Your task to perform on an android device: turn on bluetooth scan Image 0: 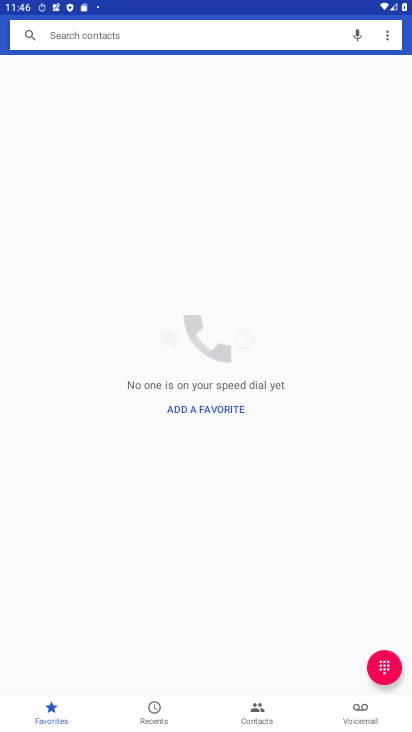
Step 0: press home button
Your task to perform on an android device: turn on bluetooth scan Image 1: 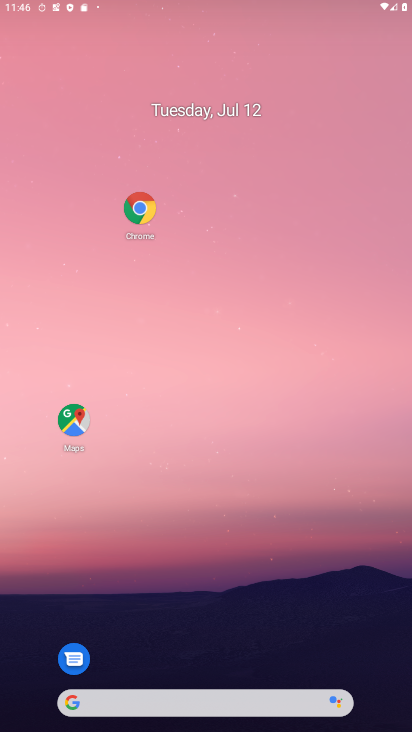
Step 1: drag from (284, 689) to (282, 4)
Your task to perform on an android device: turn on bluetooth scan Image 2: 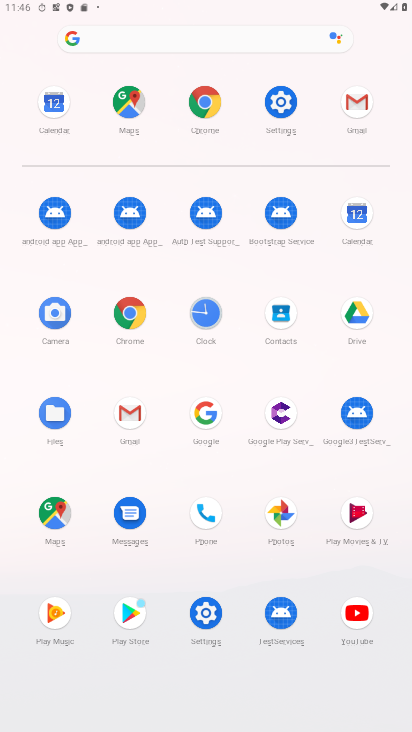
Step 2: click (277, 97)
Your task to perform on an android device: turn on bluetooth scan Image 3: 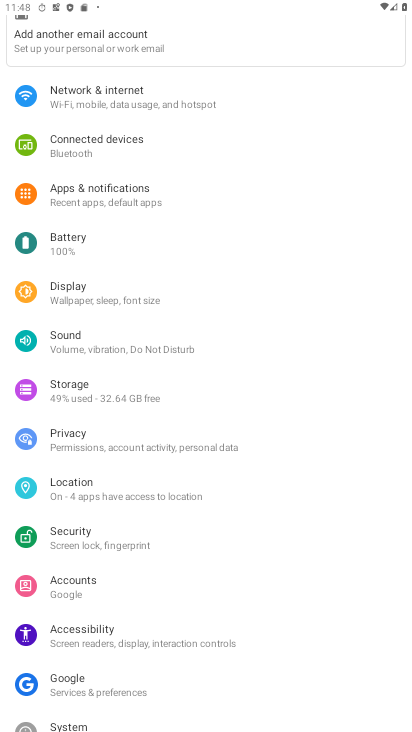
Step 3: click (77, 486)
Your task to perform on an android device: turn on bluetooth scan Image 4: 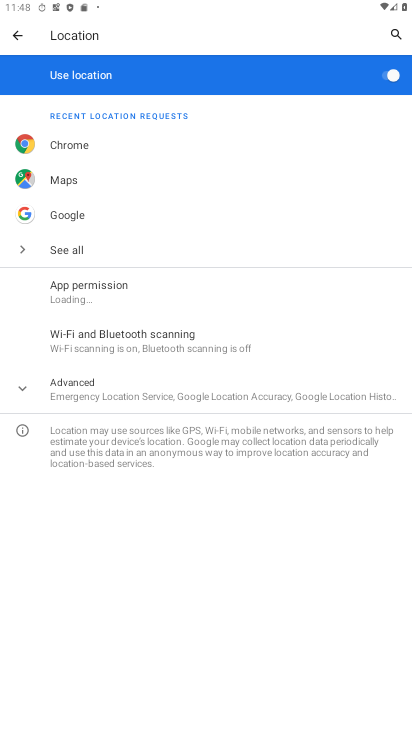
Step 4: click (181, 338)
Your task to perform on an android device: turn on bluetooth scan Image 5: 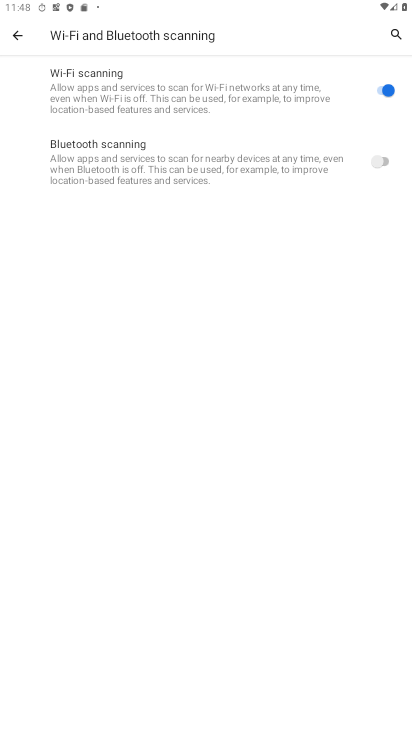
Step 5: click (380, 156)
Your task to perform on an android device: turn on bluetooth scan Image 6: 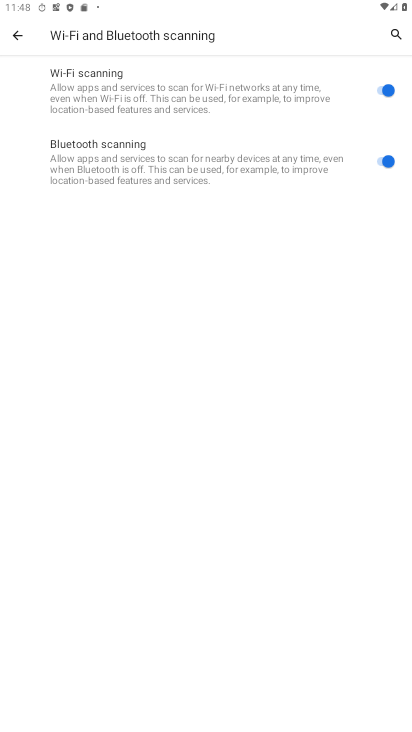
Step 6: task complete